Your task to perform on an android device: Open Google Maps and go to "Timeline" Image 0: 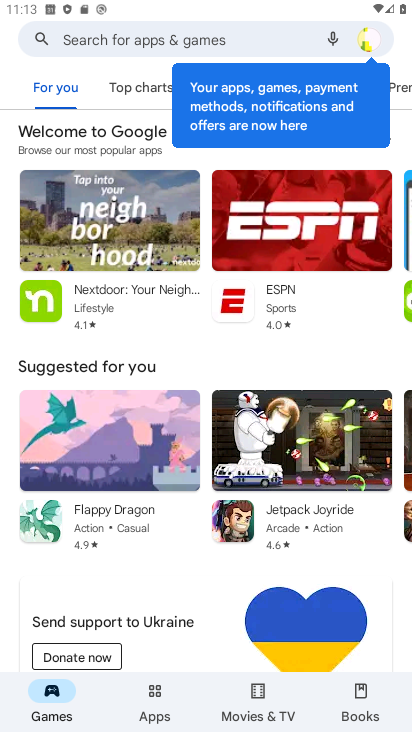
Step 0: press home button
Your task to perform on an android device: Open Google Maps and go to "Timeline" Image 1: 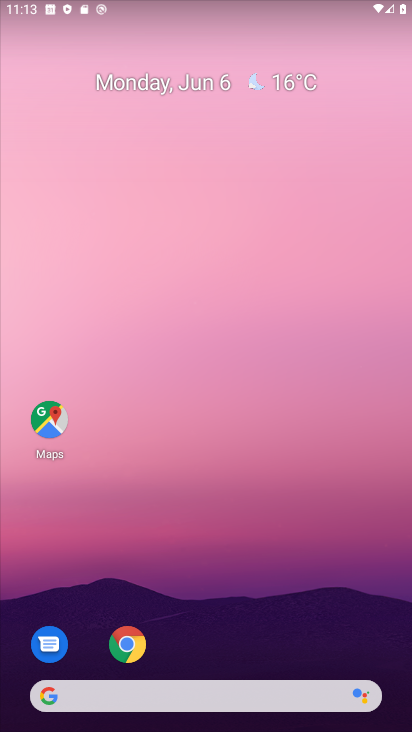
Step 1: drag from (233, 617) to (239, 22)
Your task to perform on an android device: Open Google Maps and go to "Timeline" Image 2: 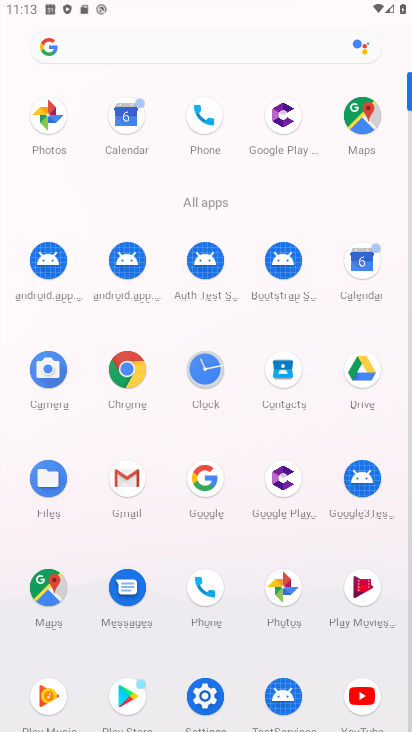
Step 2: click (40, 590)
Your task to perform on an android device: Open Google Maps and go to "Timeline" Image 3: 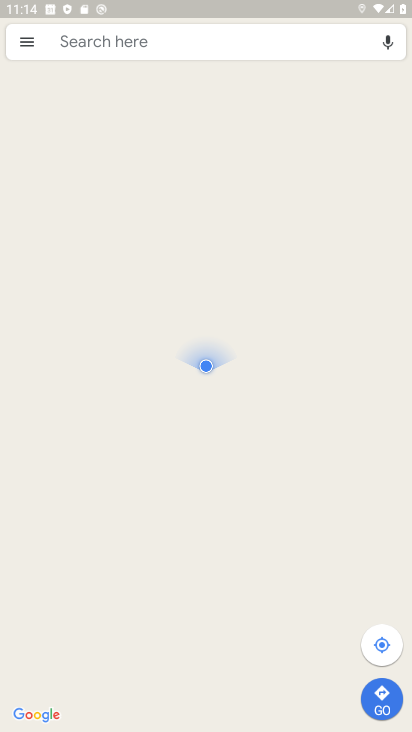
Step 3: click (24, 42)
Your task to perform on an android device: Open Google Maps and go to "Timeline" Image 4: 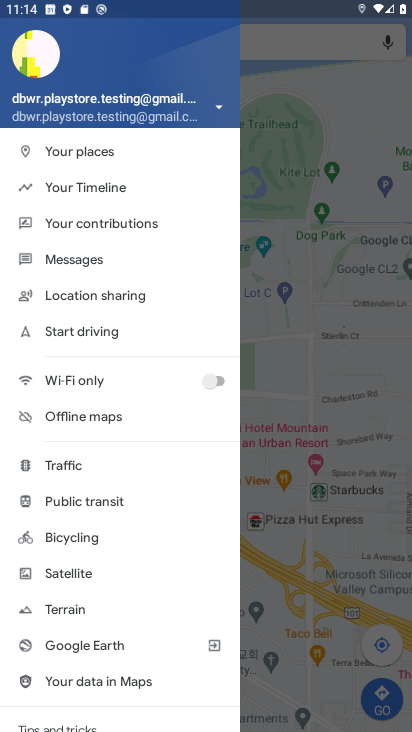
Step 4: click (100, 588)
Your task to perform on an android device: Open Google Maps and go to "Timeline" Image 5: 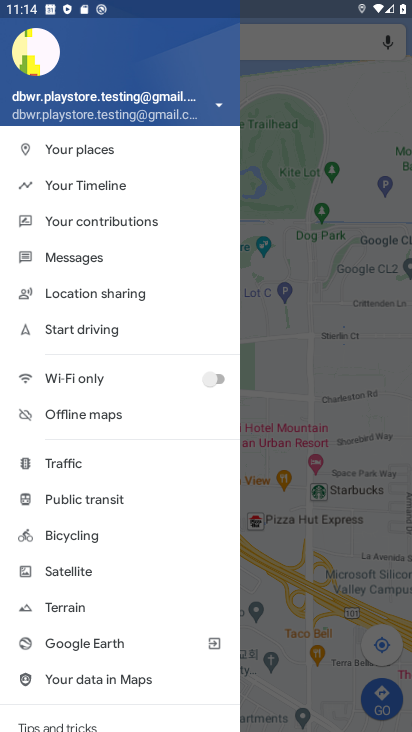
Step 5: click (109, 197)
Your task to perform on an android device: Open Google Maps and go to "Timeline" Image 6: 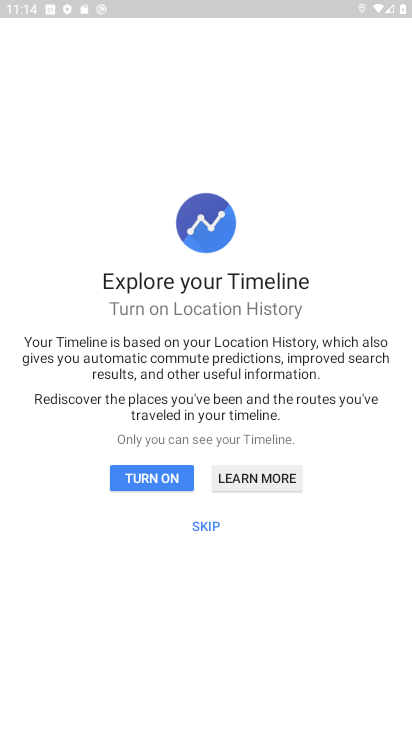
Step 6: click (216, 533)
Your task to perform on an android device: Open Google Maps and go to "Timeline" Image 7: 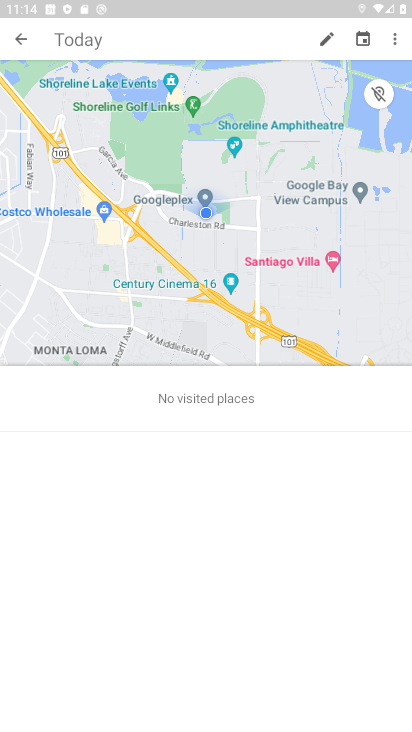
Step 7: task complete